Your task to perform on an android device: install app "LiveIn - Share Your Moment" Image 0: 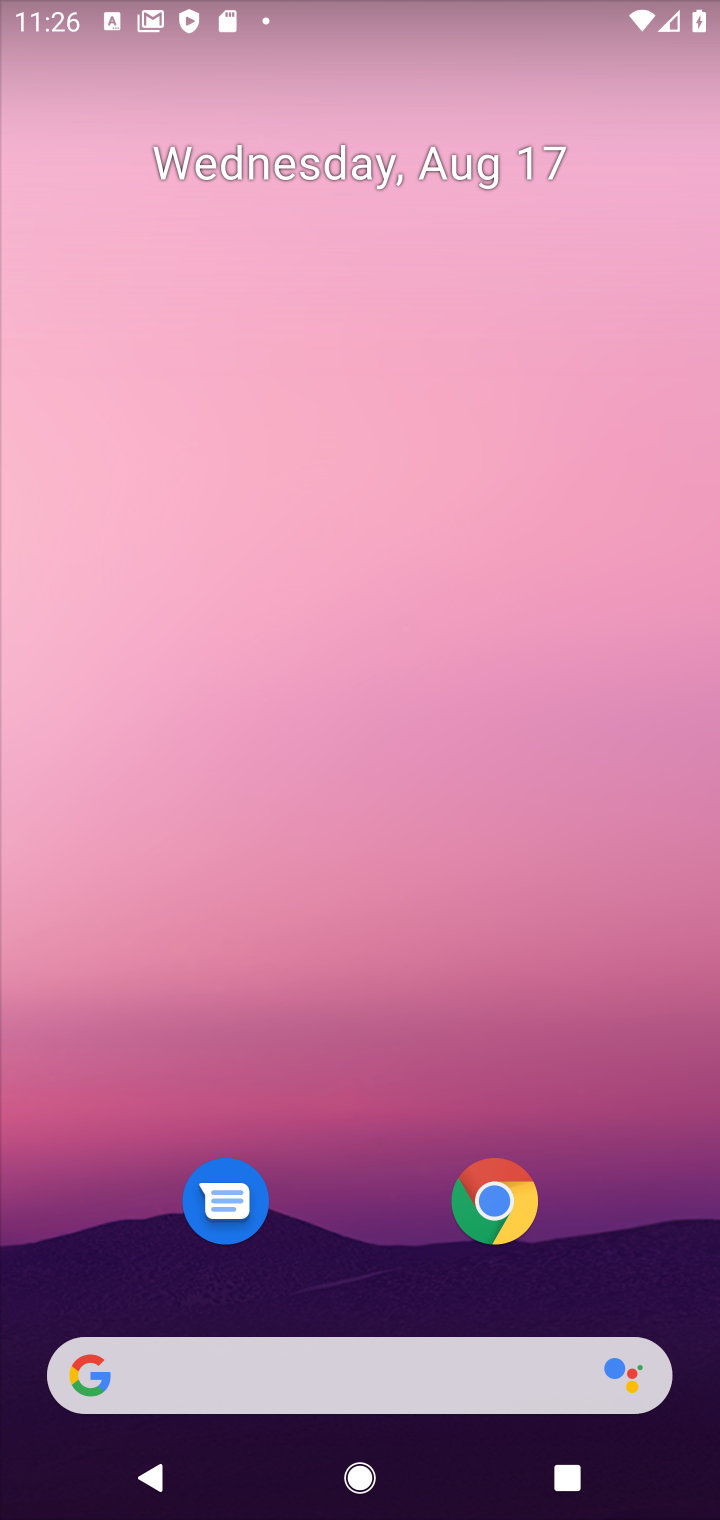
Step 0: drag from (362, 893) to (426, 349)
Your task to perform on an android device: install app "LiveIn - Share Your Moment" Image 1: 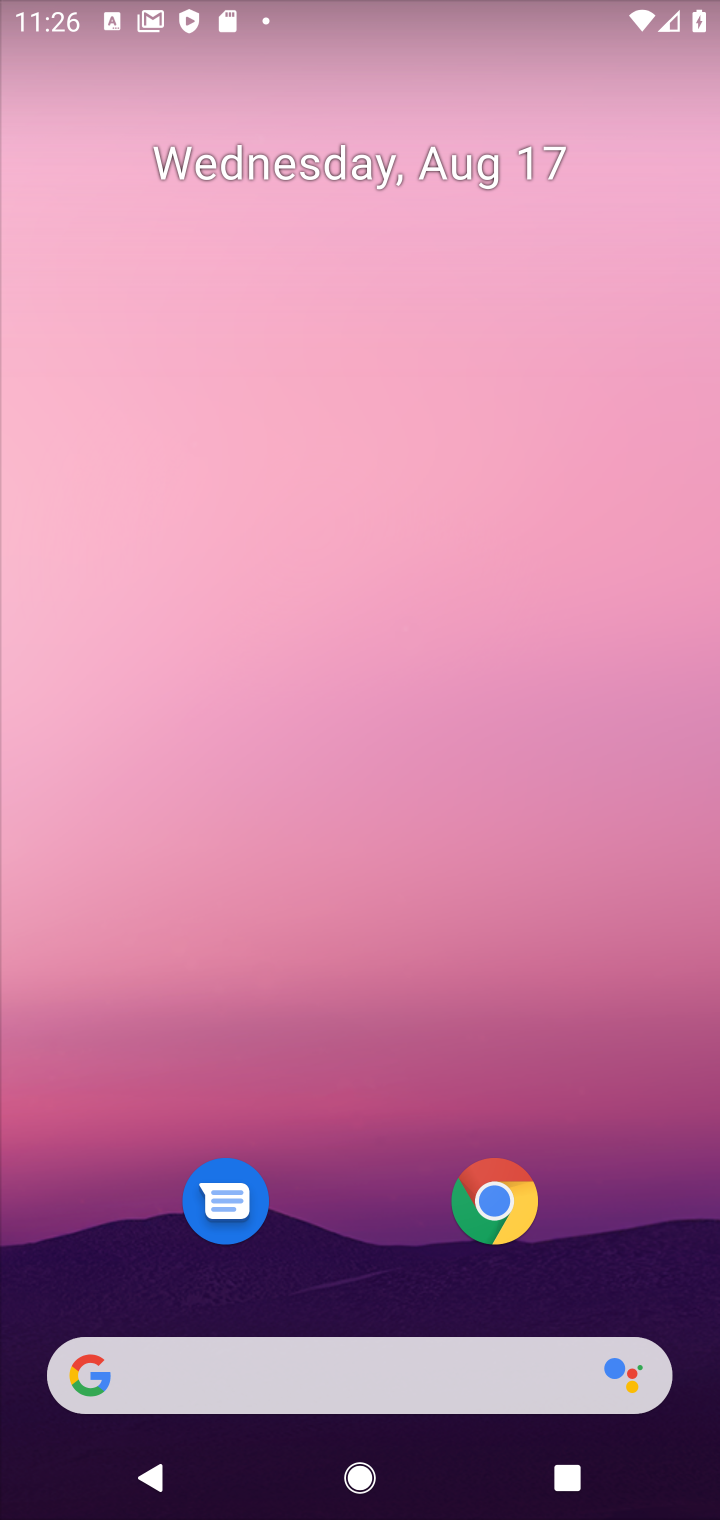
Step 1: drag from (317, 1246) to (597, 15)
Your task to perform on an android device: install app "LiveIn - Share Your Moment" Image 2: 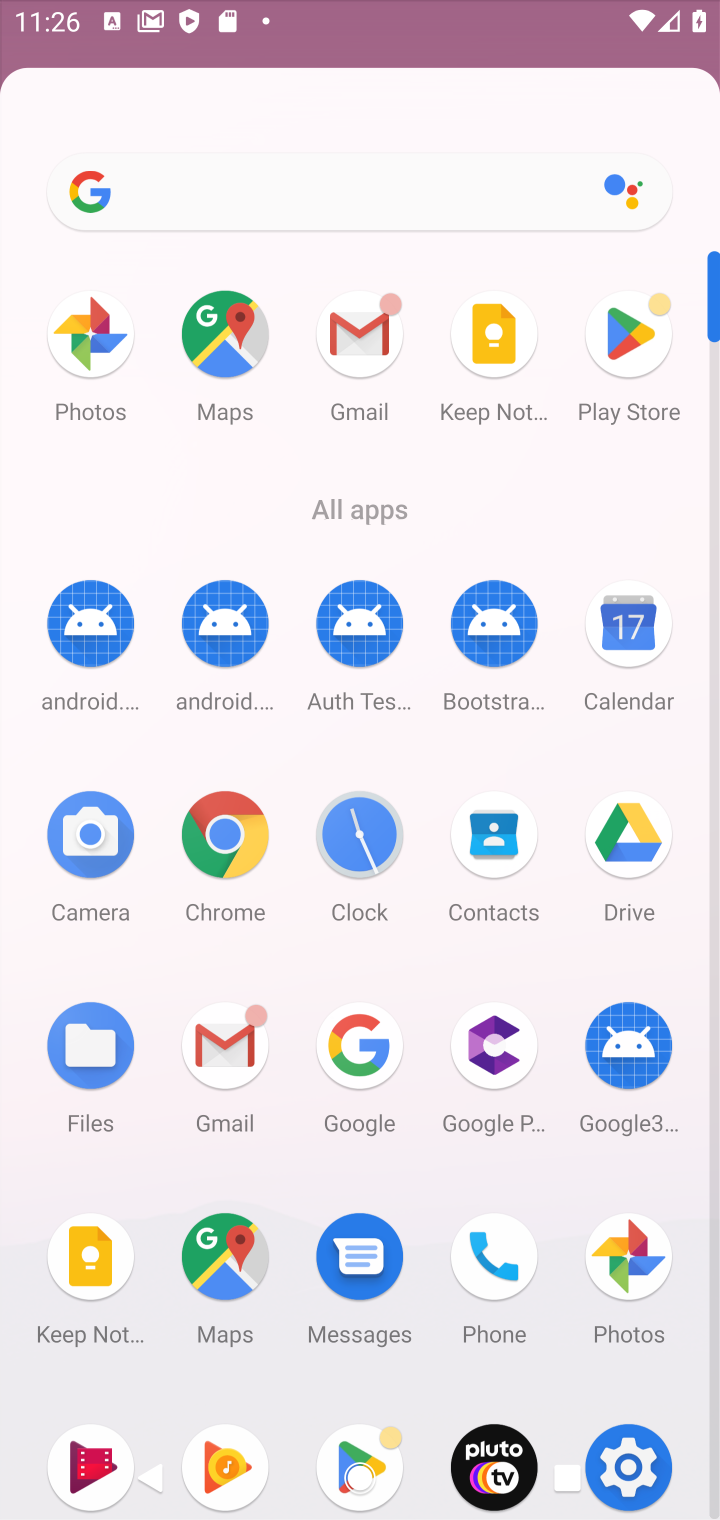
Step 2: click (624, 362)
Your task to perform on an android device: install app "LiveIn - Share Your Moment" Image 3: 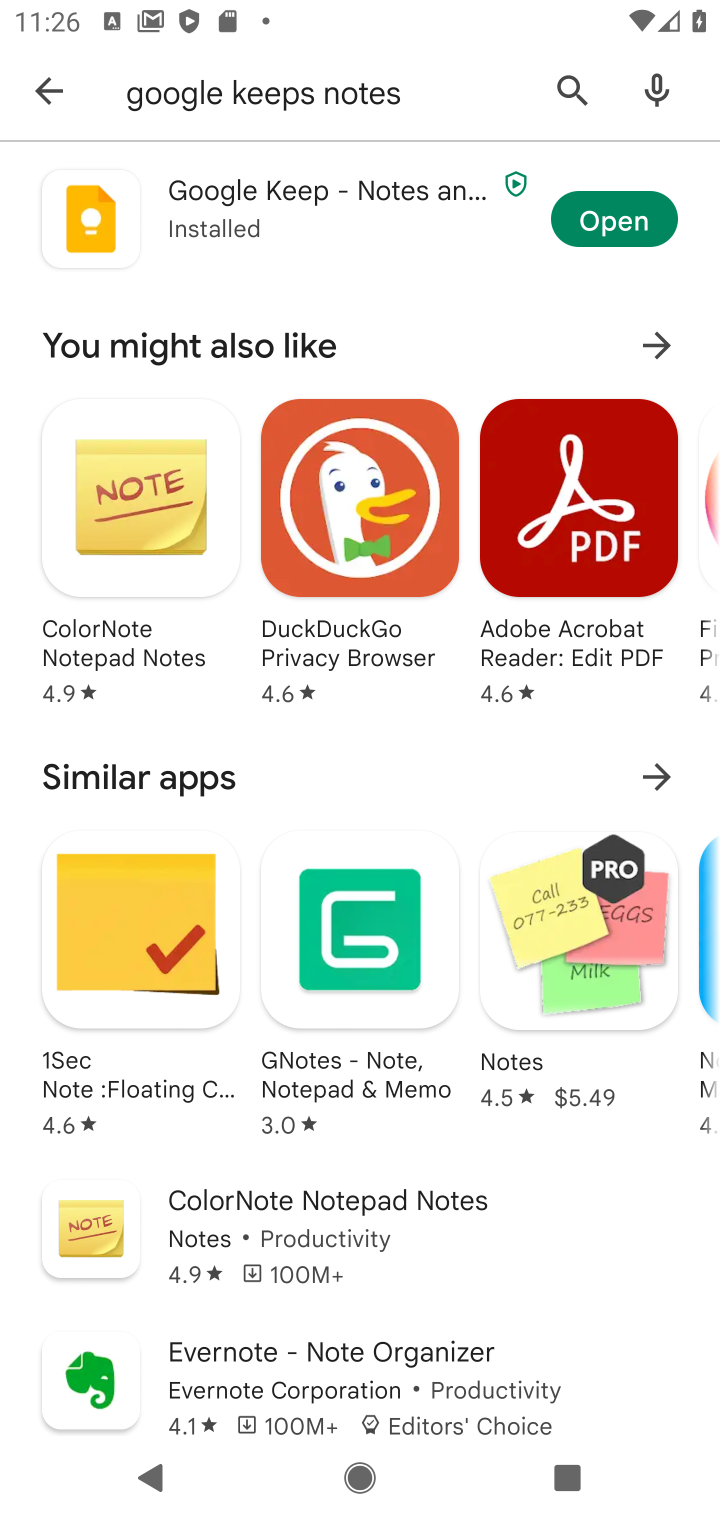
Step 3: click (307, 93)
Your task to perform on an android device: install app "LiveIn - Share Your Moment" Image 4: 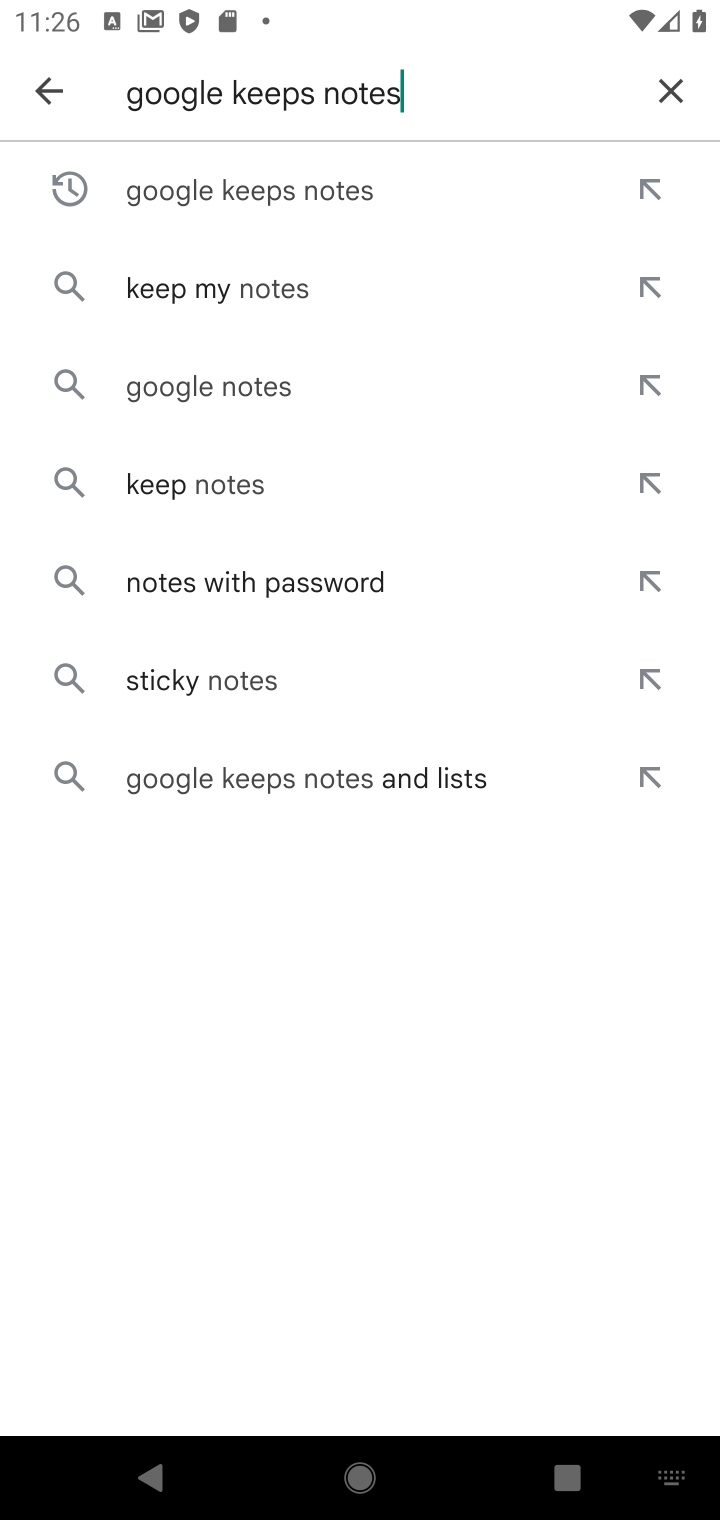
Step 4: click (656, 81)
Your task to perform on an android device: install app "LiveIn - Share Your Moment" Image 5: 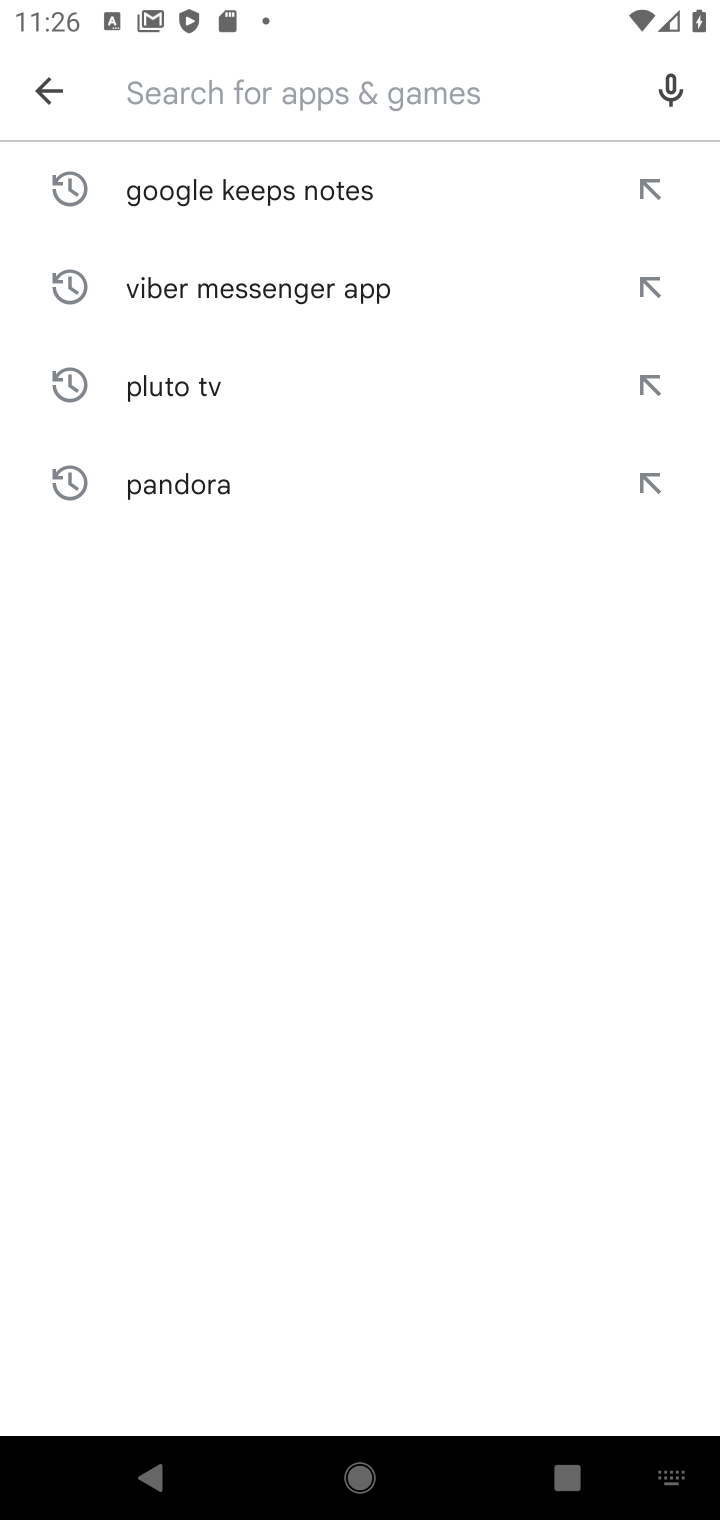
Step 5: type "LiveIn - Share Your Moment"
Your task to perform on an android device: install app "LiveIn - Share Your Moment" Image 6: 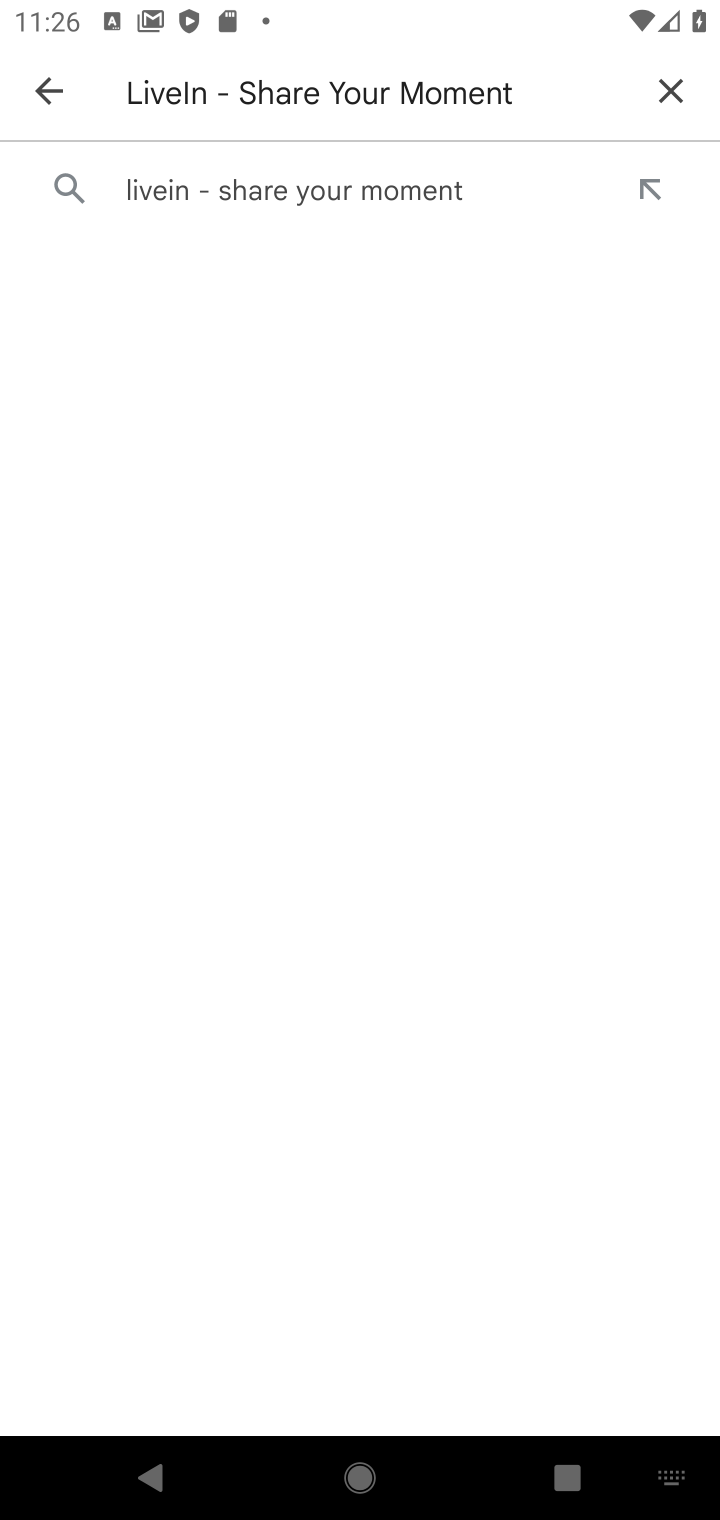
Step 6: click (392, 168)
Your task to perform on an android device: install app "LiveIn - Share Your Moment" Image 7: 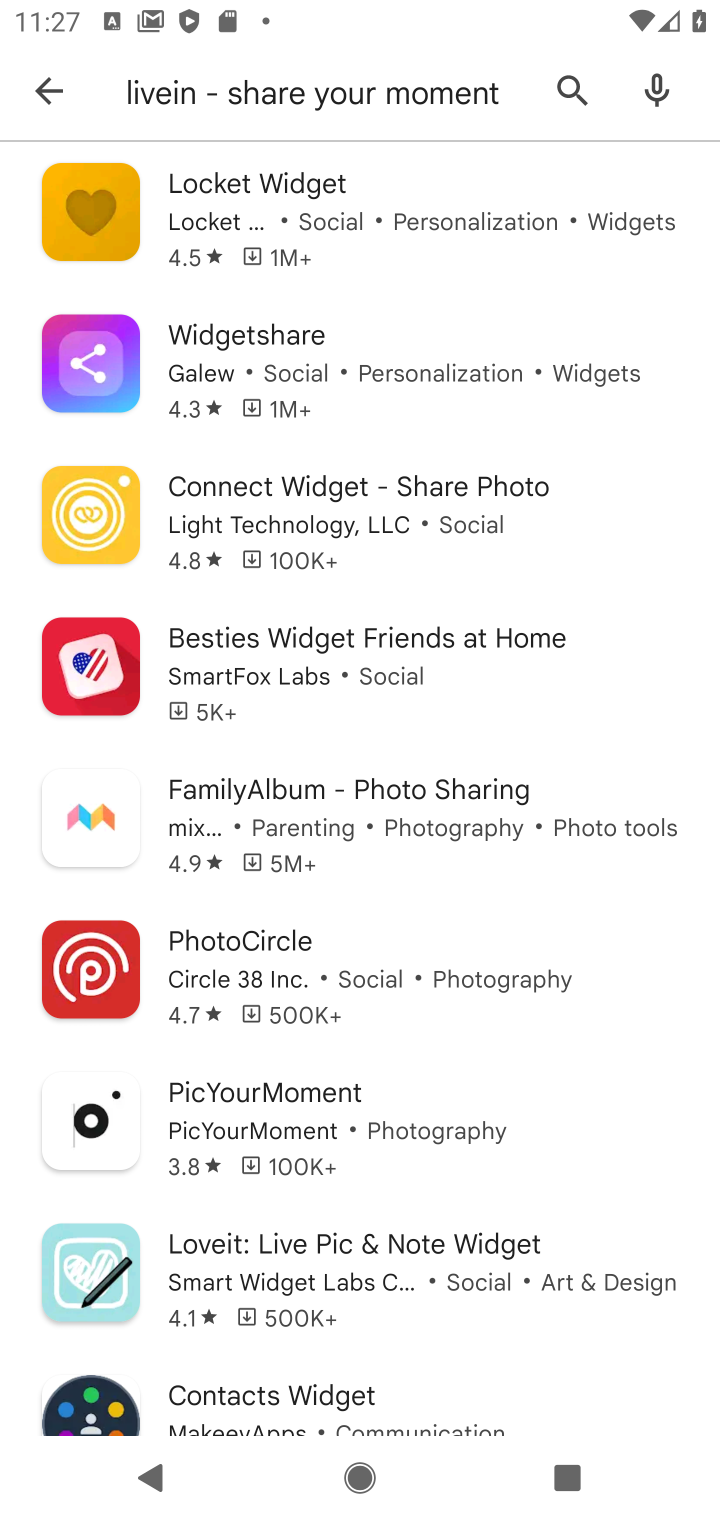
Step 7: task complete